Your task to perform on an android device: turn off notifications settings in the gmail app Image 0: 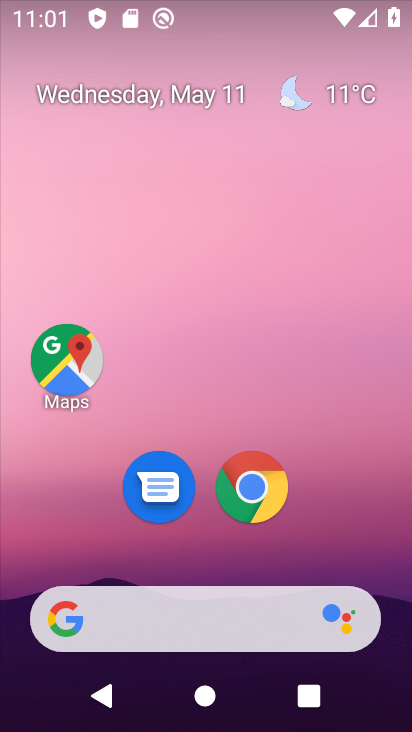
Step 0: drag from (341, 545) to (328, 140)
Your task to perform on an android device: turn off notifications settings in the gmail app Image 1: 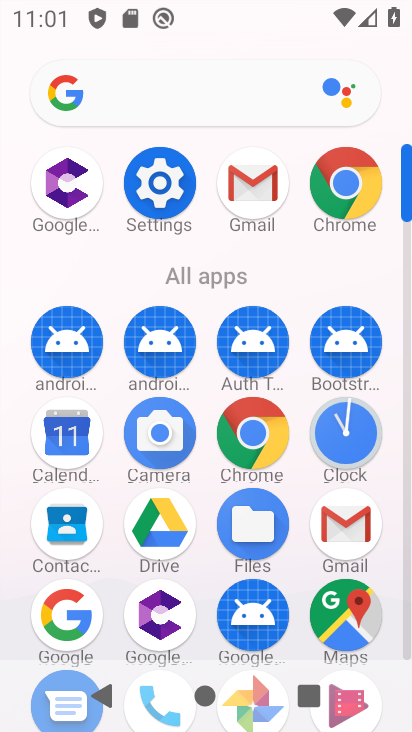
Step 1: click (245, 189)
Your task to perform on an android device: turn off notifications settings in the gmail app Image 2: 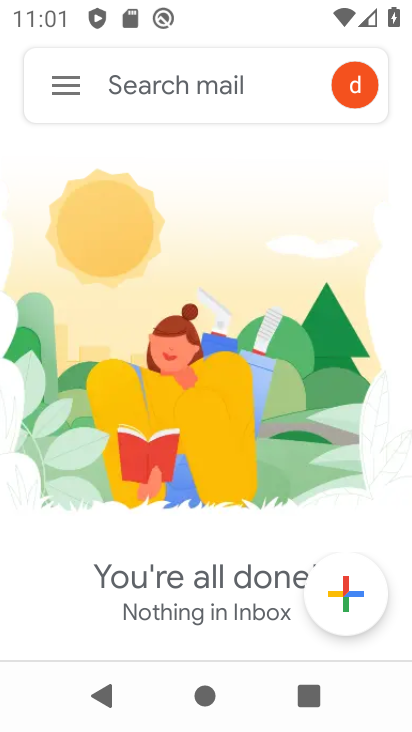
Step 2: click (72, 96)
Your task to perform on an android device: turn off notifications settings in the gmail app Image 3: 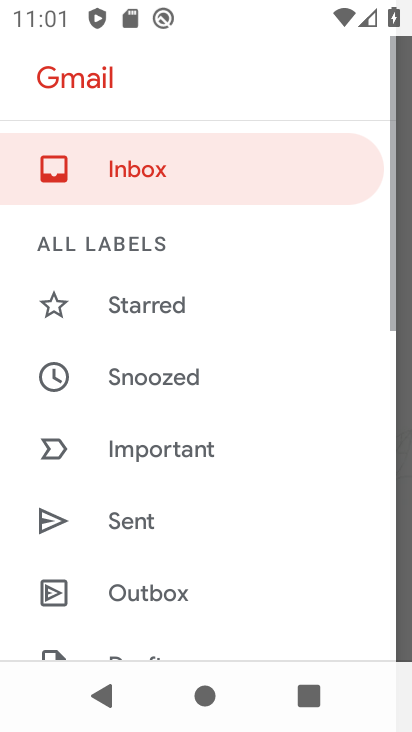
Step 3: drag from (225, 420) to (205, 141)
Your task to perform on an android device: turn off notifications settings in the gmail app Image 4: 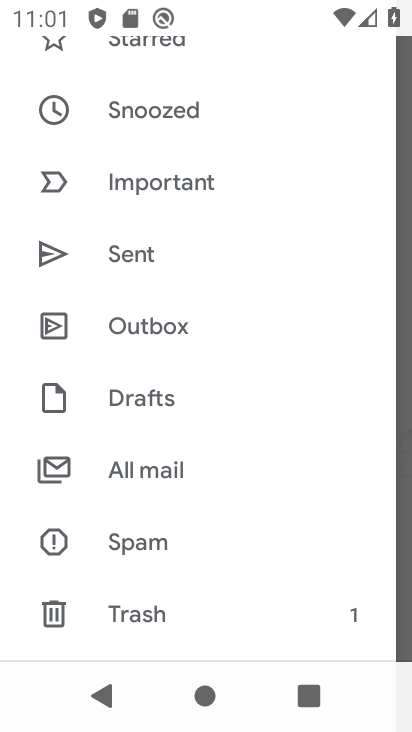
Step 4: drag from (226, 599) to (199, 181)
Your task to perform on an android device: turn off notifications settings in the gmail app Image 5: 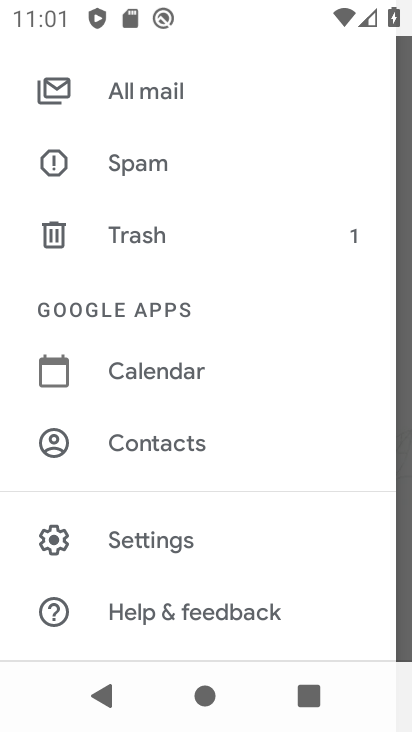
Step 5: click (162, 557)
Your task to perform on an android device: turn off notifications settings in the gmail app Image 6: 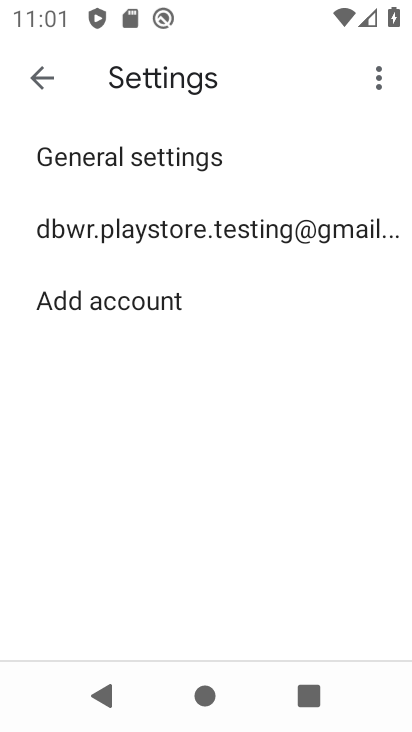
Step 6: click (128, 227)
Your task to perform on an android device: turn off notifications settings in the gmail app Image 7: 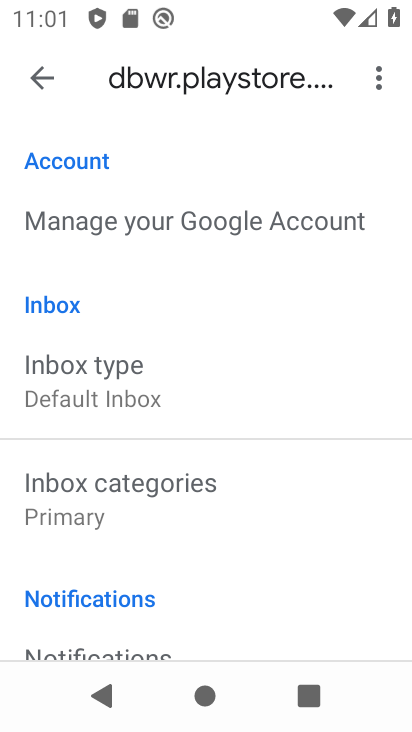
Step 7: click (170, 649)
Your task to perform on an android device: turn off notifications settings in the gmail app Image 8: 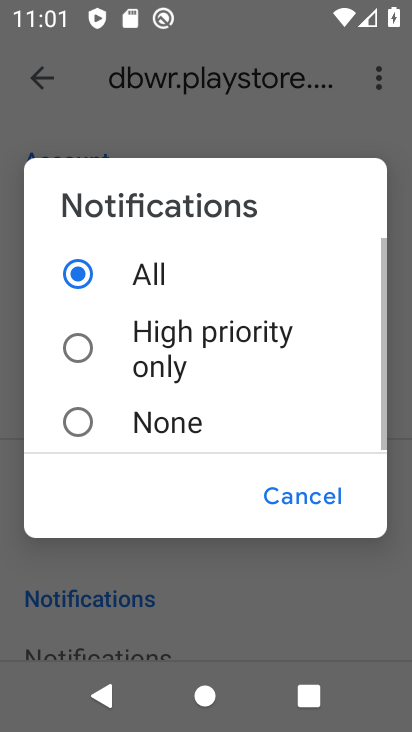
Step 8: click (192, 425)
Your task to perform on an android device: turn off notifications settings in the gmail app Image 9: 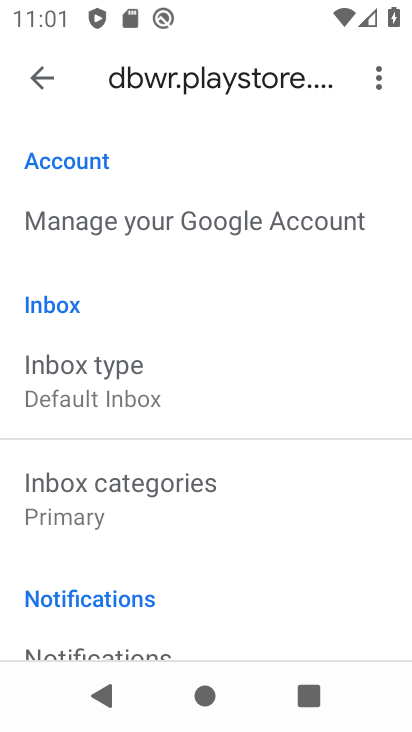
Step 9: task complete